Your task to perform on an android device: check battery use Image 0: 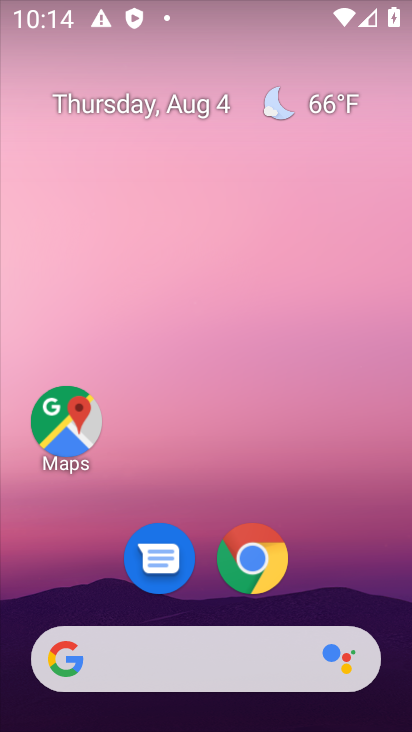
Step 0: drag from (332, 567) to (347, 63)
Your task to perform on an android device: check battery use Image 1: 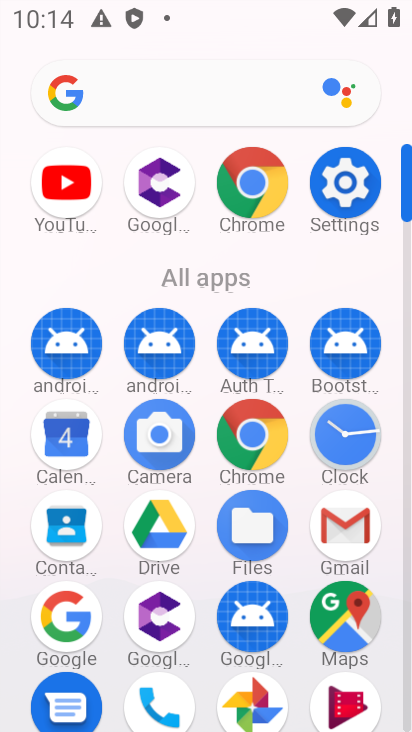
Step 1: click (259, 438)
Your task to perform on an android device: check battery use Image 2: 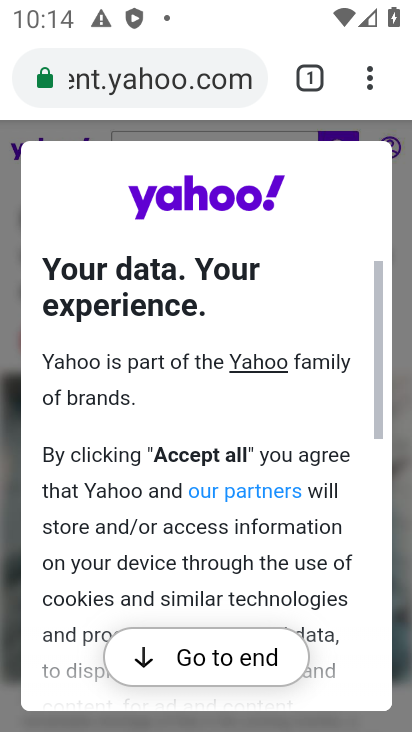
Step 2: press home button
Your task to perform on an android device: check battery use Image 3: 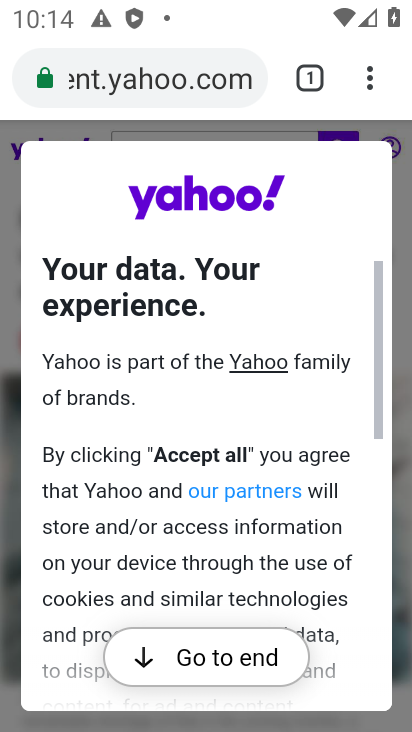
Step 3: press home button
Your task to perform on an android device: check battery use Image 4: 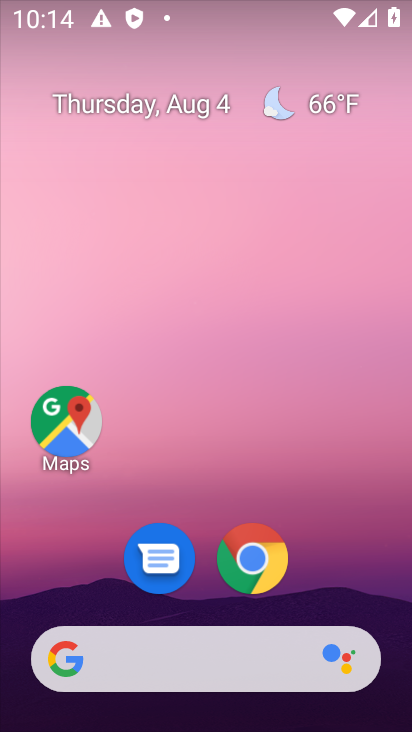
Step 4: drag from (326, 571) to (344, 103)
Your task to perform on an android device: check battery use Image 5: 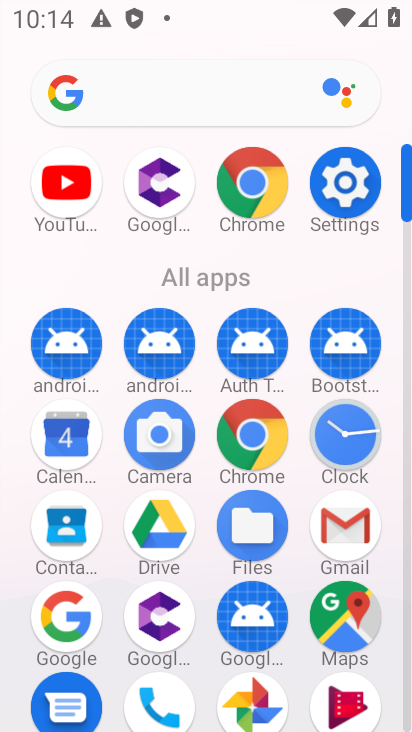
Step 5: drag from (214, 573) to (227, 301)
Your task to perform on an android device: check battery use Image 6: 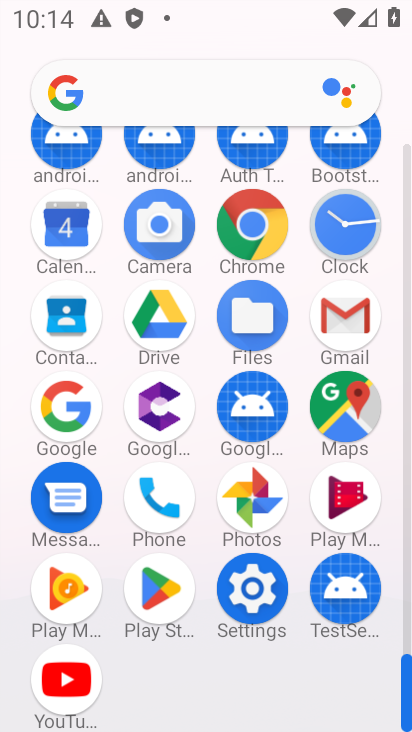
Step 6: click (262, 602)
Your task to perform on an android device: check battery use Image 7: 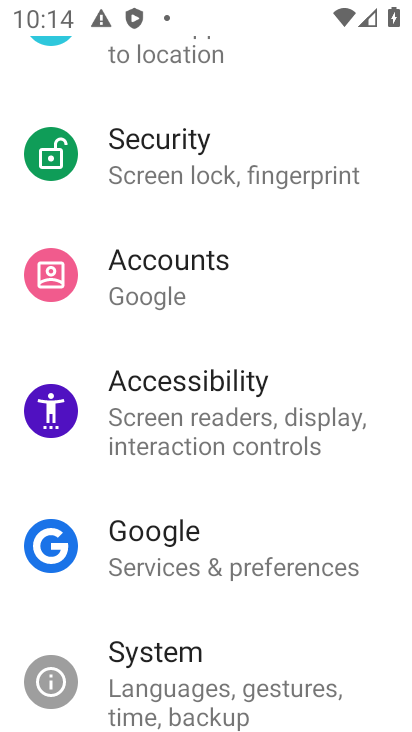
Step 7: drag from (295, 652) to (383, 201)
Your task to perform on an android device: check battery use Image 8: 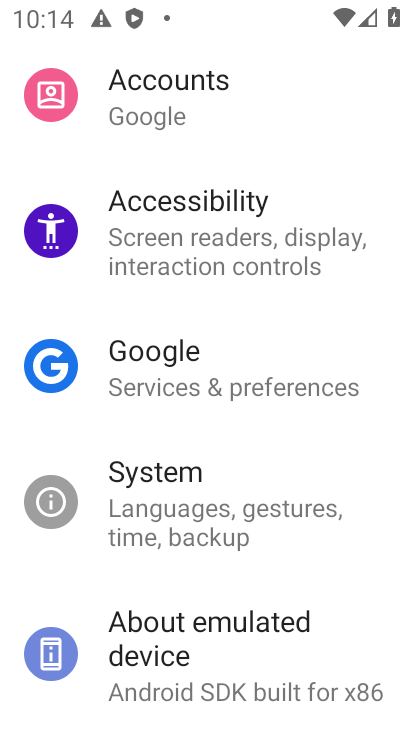
Step 8: drag from (337, 144) to (285, 628)
Your task to perform on an android device: check battery use Image 9: 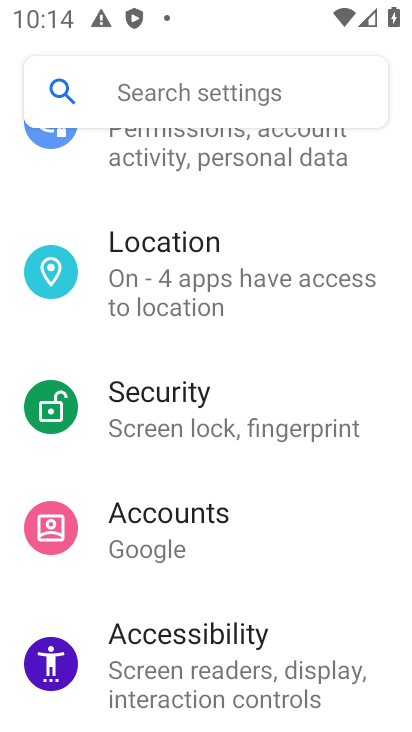
Step 9: drag from (315, 224) to (296, 625)
Your task to perform on an android device: check battery use Image 10: 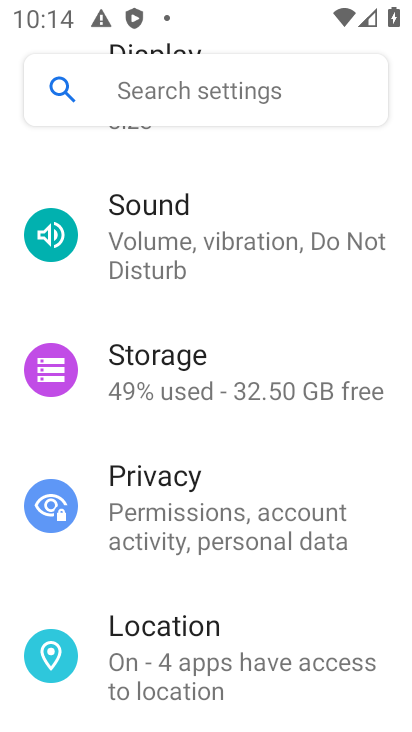
Step 10: drag from (321, 312) to (311, 643)
Your task to perform on an android device: check battery use Image 11: 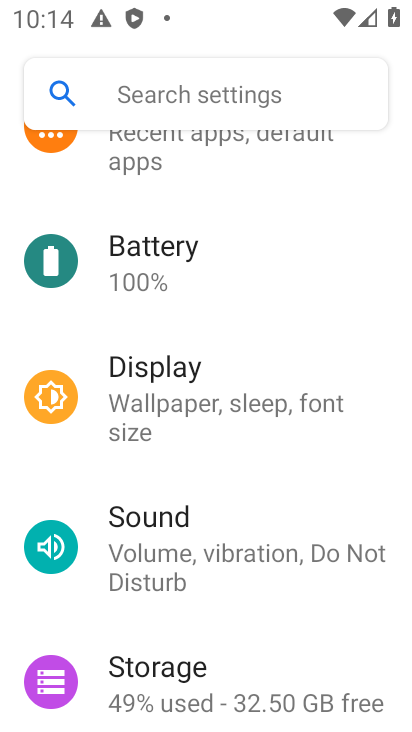
Step 11: click (166, 284)
Your task to perform on an android device: check battery use Image 12: 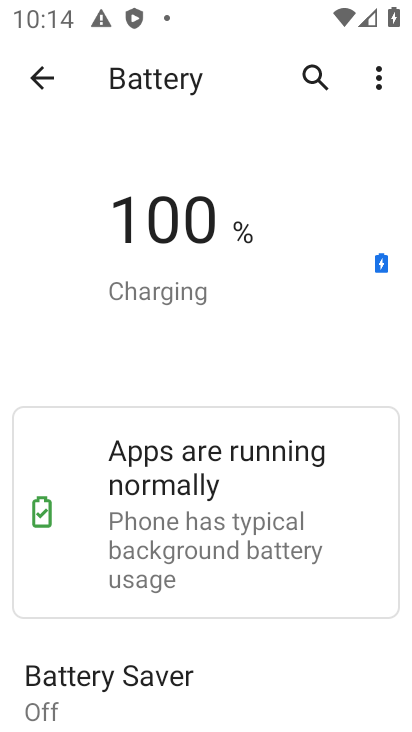
Step 12: click (380, 69)
Your task to perform on an android device: check battery use Image 13: 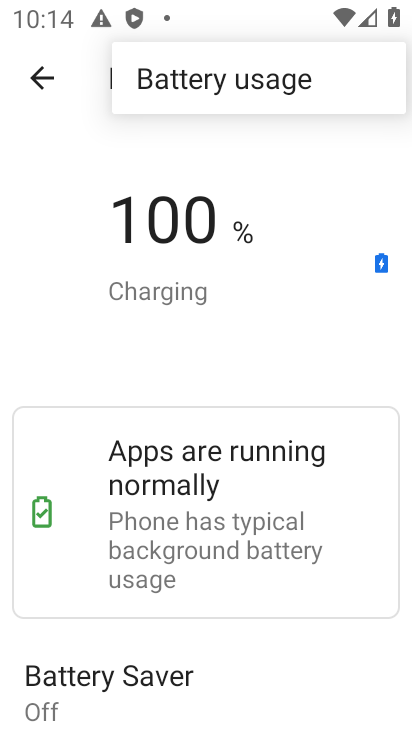
Step 13: click (275, 79)
Your task to perform on an android device: check battery use Image 14: 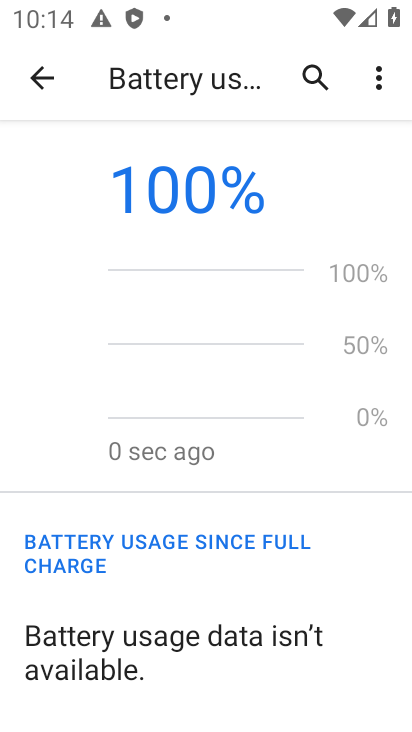
Step 14: task complete